Your task to perform on an android device: Open Reddit.com Image 0: 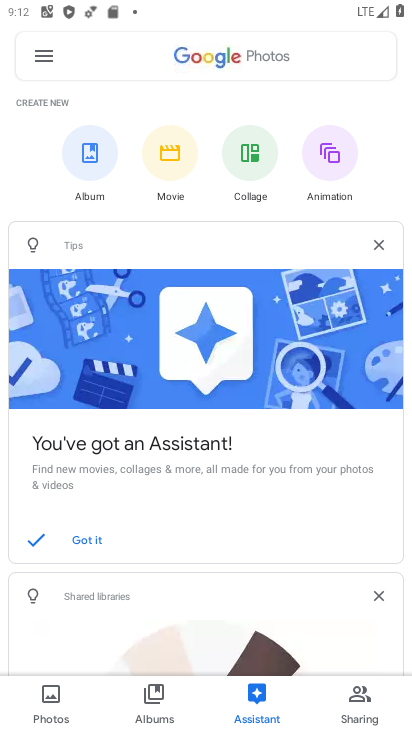
Step 0: press home button
Your task to perform on an android device: Open Reddit.com Image 1: 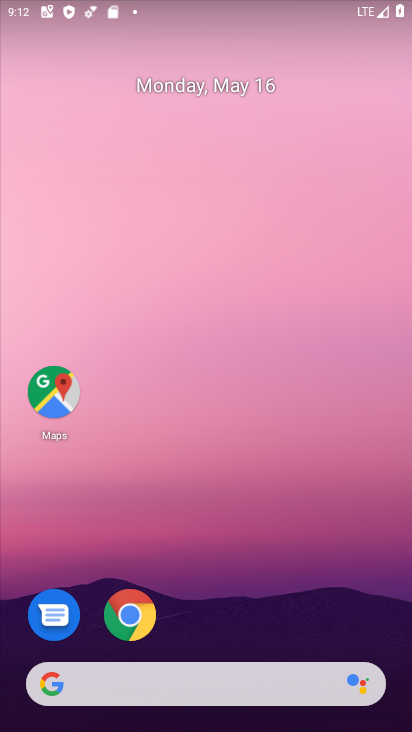
Step 1: click (125, 619)
Your task to perform on an android device: Open Reddit.com Image 2: 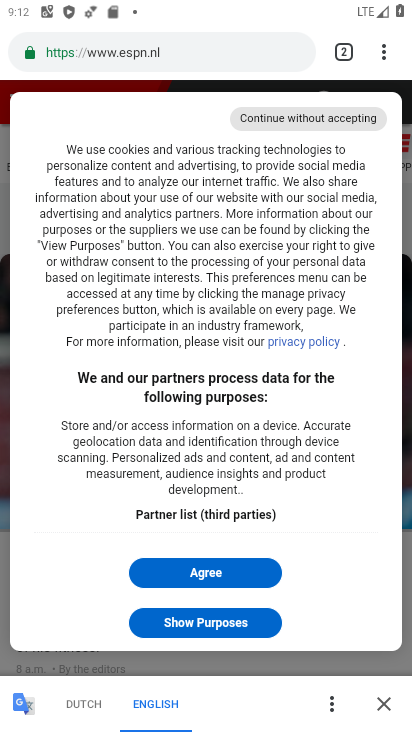
Step 2: click (201, 63)
Your task to perform on an android device: Open Reddit.com Image 3: 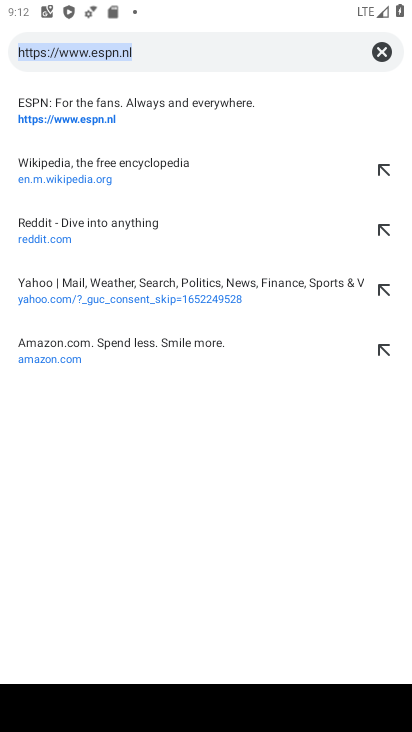
Step 3: click (54, 233)
Your task to perform on an android device: Open Reddit.com Image 4: 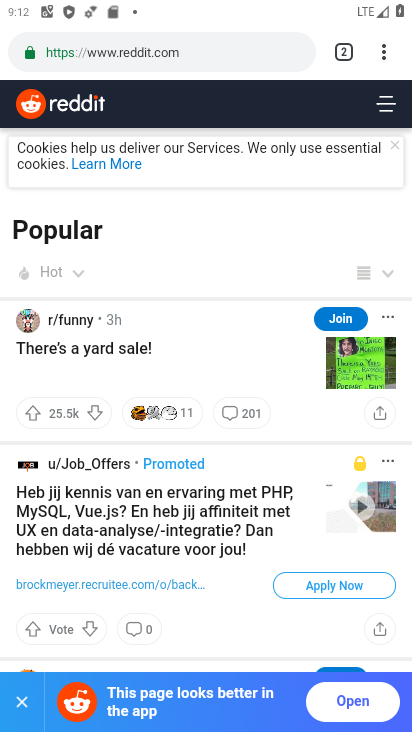
Step 4: task complete